Your task to perform on an android device: create a new album in the google photos Image 0: 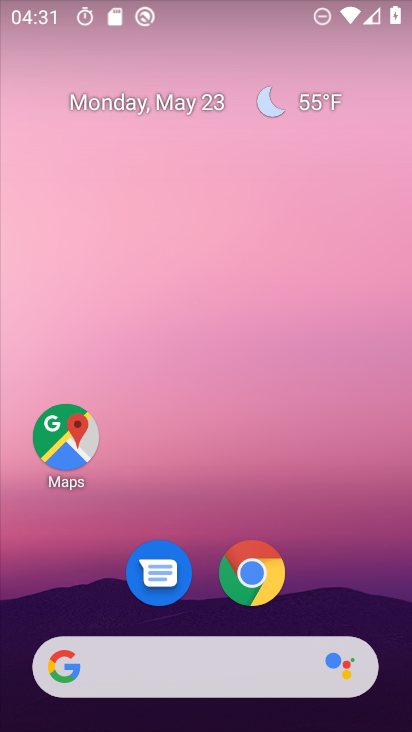
Step 0: drag from (326, 595) to (236, 45)
Your task to perform on an android device: create a new album in the google photos Image 1: 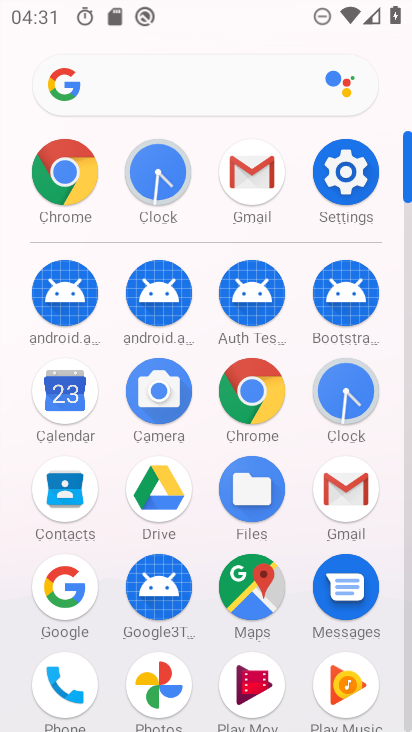
Step 1: click (162, 677)
Your task to perform on an android device: create a new album in the google photos Image 2: 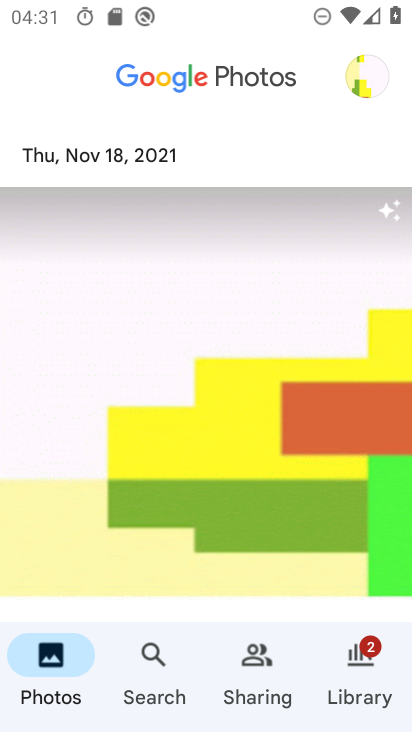
Step 2: click (370, 678)
Your task to perform on an android device: create a new album in the google photos Image 3: 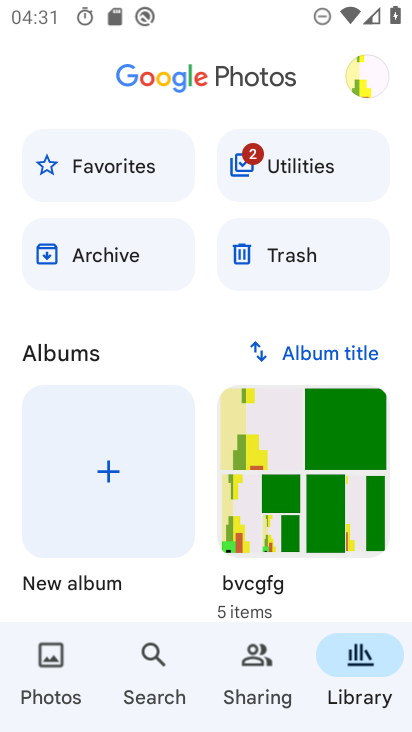
Step 3: click (116, 473)
Your task to perform on an android device: create a new album in the google photos Image 4: 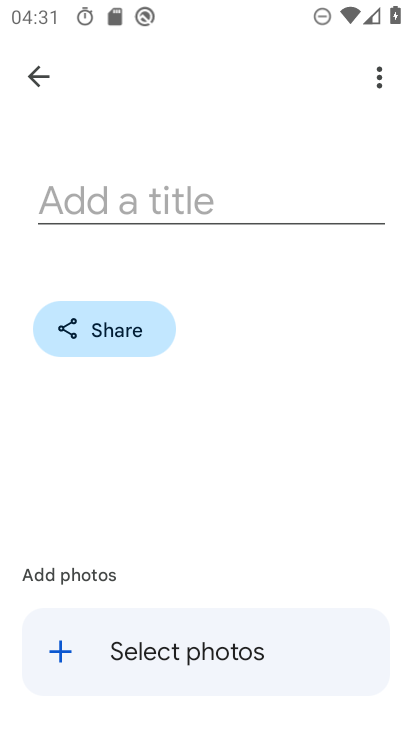
Step 4: click (202, 206)
Your task to perform on an android device: create a new album in the google photos Image 5: 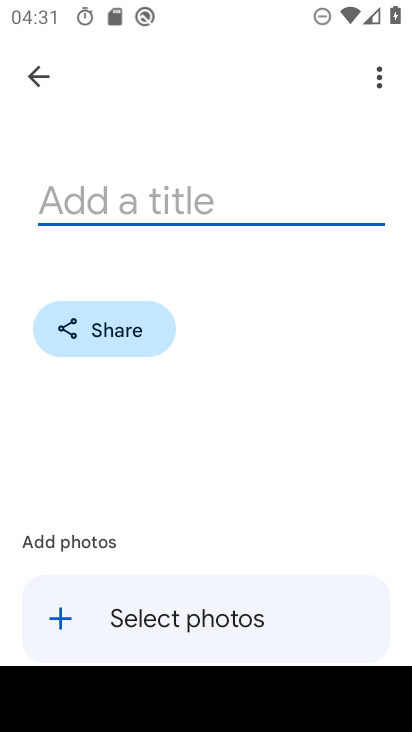
Step 5: type "gchhg"
Your task to perform on an android device: create a new album in the google photos Image 6: 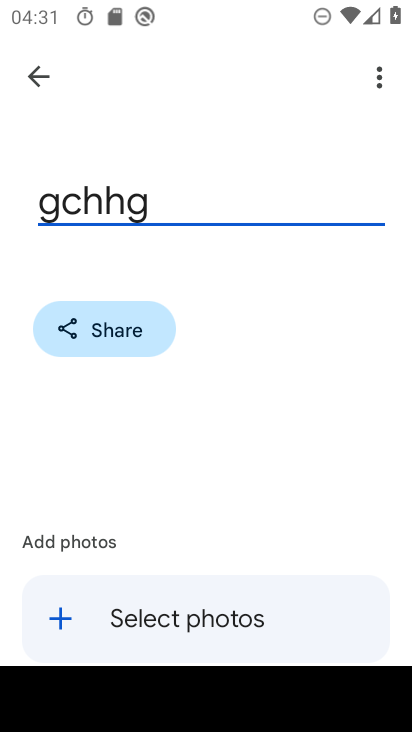
Step 6: click (62, 622)
Your task to perform on an android device: create a new album in the google photos Image 7: 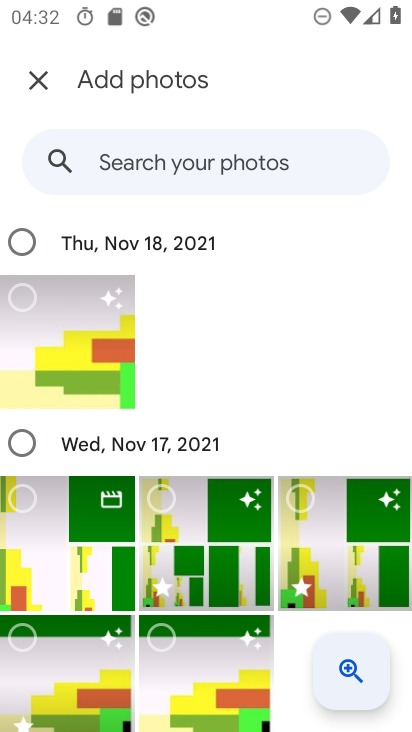
Step 7: click (18, 447)
Your task to perform on an android device: create a new album in the google photos Image 8: 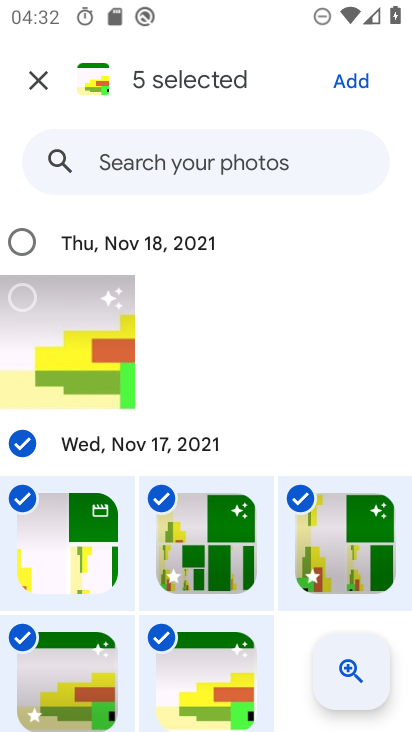
Step 8: click (354, 79)
Your task to perform on an android device: create a new album in the google photos Image 9: 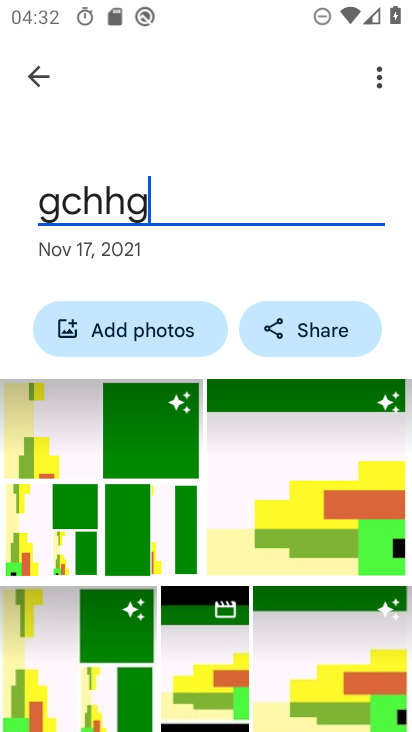
Step 9: task complete